Your task to perform on an android device: Open my contact list Image 0: 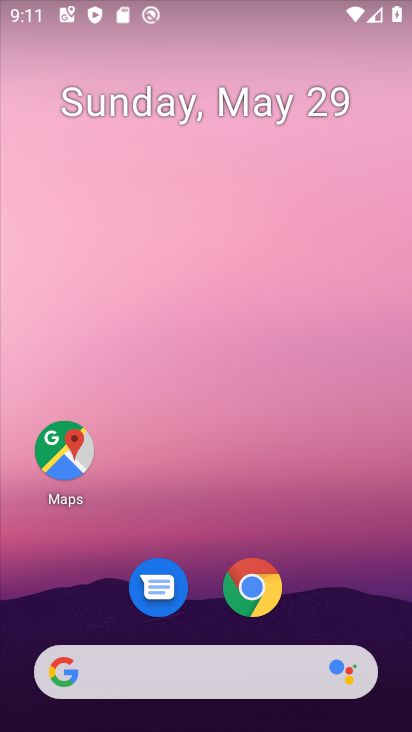
Step 0: drag from (221, 491) to (239, 45)
Your task to perform on an android device: Open my contact list Image 1: 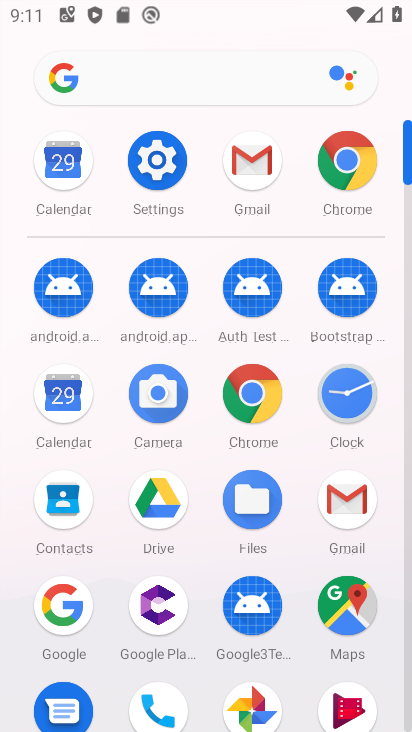
Step 1: click (67, 511)
Your task to perform on an android device: Open my contact list Image 2: 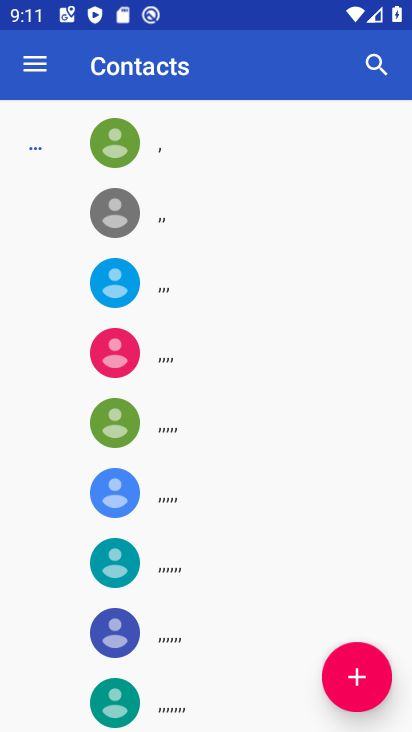
Step 2: task complete